Your task to perform on an android device: Open accessibility settings Image 0: 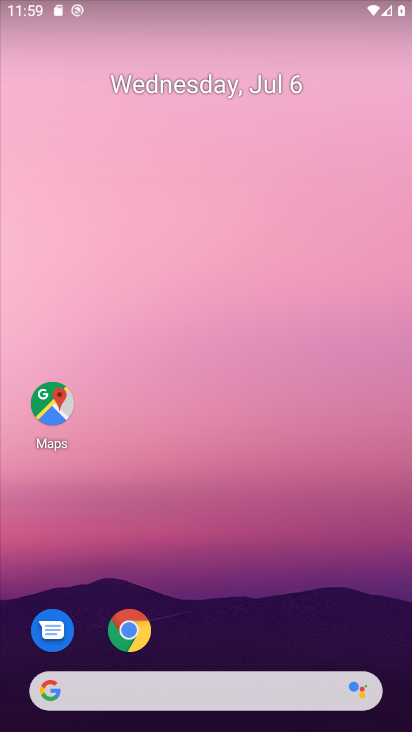
Step 0: drag from (271, 656) to (241, 285)
Your task to perform on an android device: Open accessibility settings Image 1: 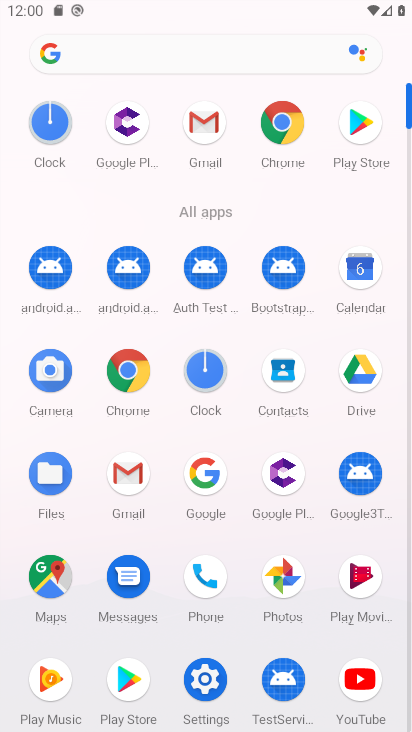
Step 1: click (195, 669)
Your task to perform on an android device: Open accessibility settings Image 2: 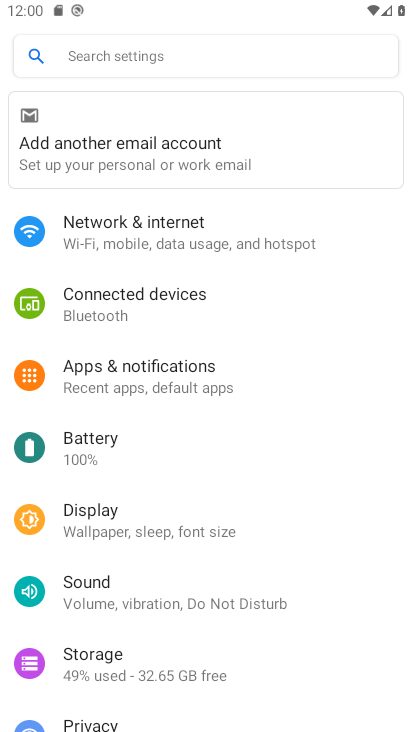
Step 2: drag from (176, 591) to (189, 276)
Your task to perform on an android device: Open accessibility settings Image 3: 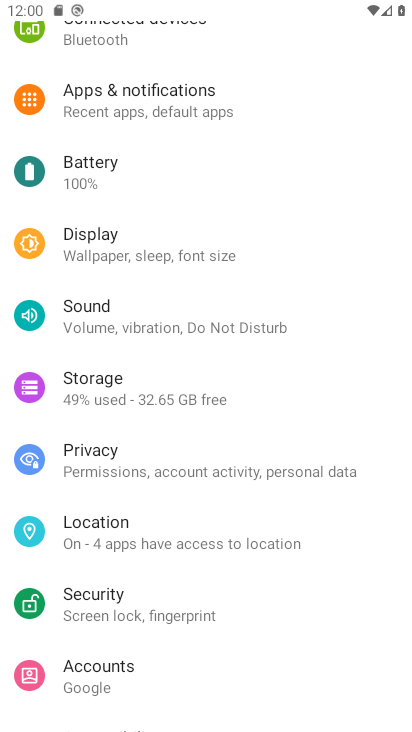
Step 3: drag from (159, 651) to (191, 284)
Your task to perform on an android device: Open accessibility settings Image 4: 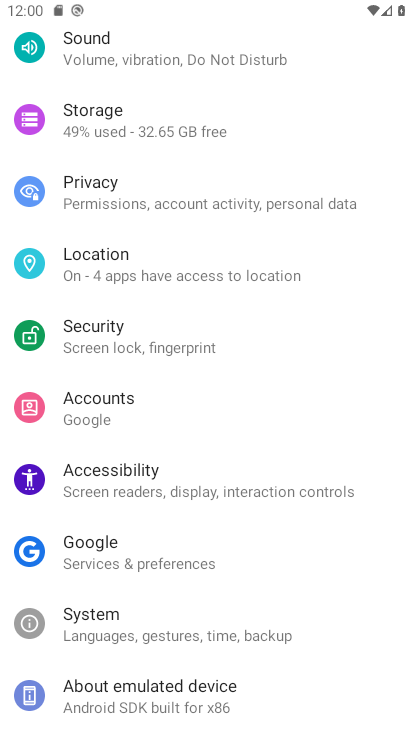
Step 4: click (154, 471)
Your task to perform on an android device: Open accessibility settings Image 5: 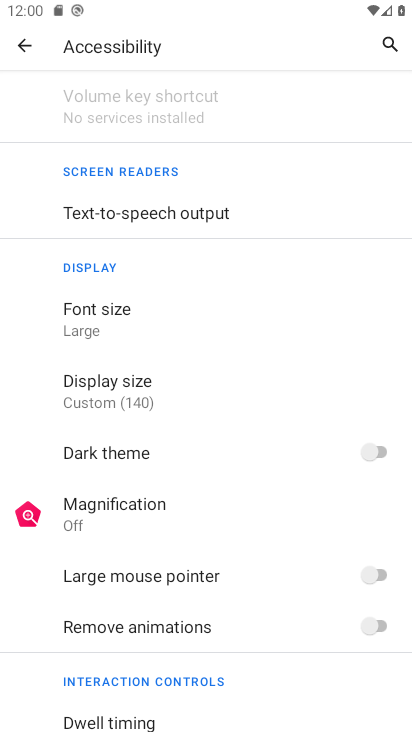
Step 5: task complete